Your task to perform on an android device: Open internet settings Image 0: 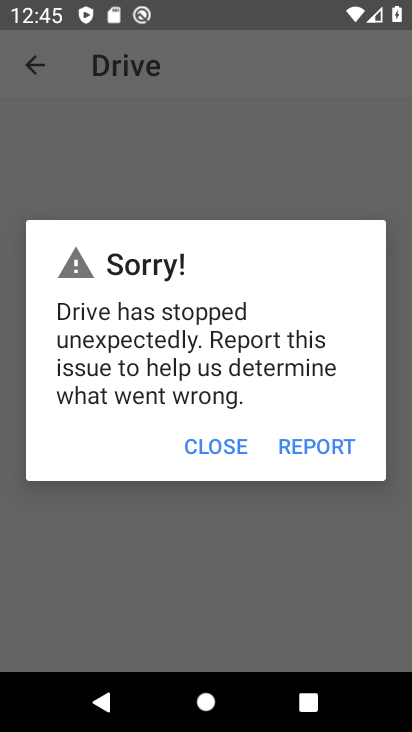
Step 0: press home button
Your task to perform on an android device: Open internet settings Image 1: 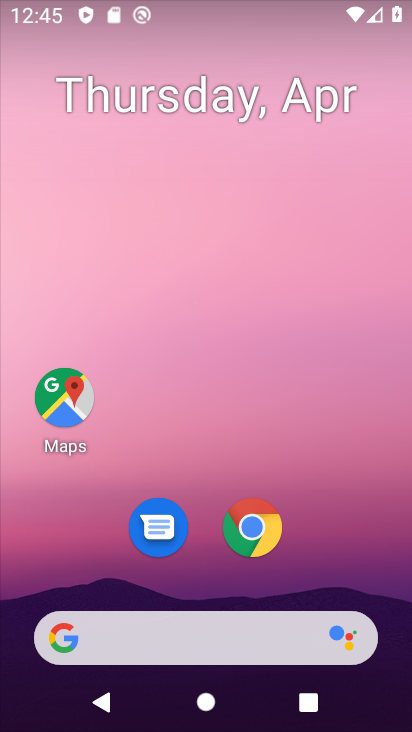
Step 1: drag from (187, 478) to (218, 153)
Your task to perform on an android device: Open internet settings Image 2: 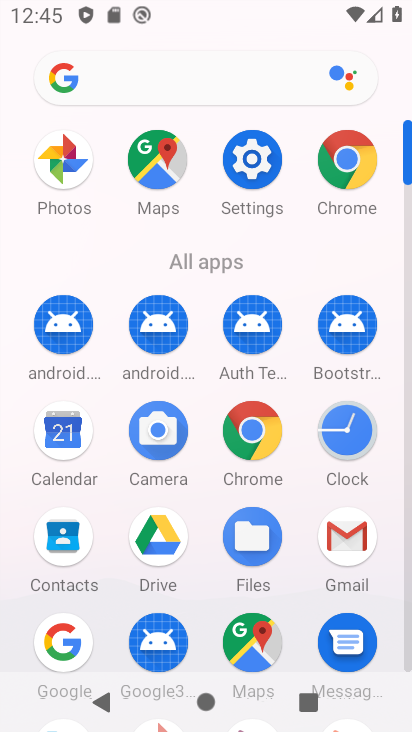
Step 2: click (256, 171)
Your task to perform on an android device: Open internet settings Image 3: 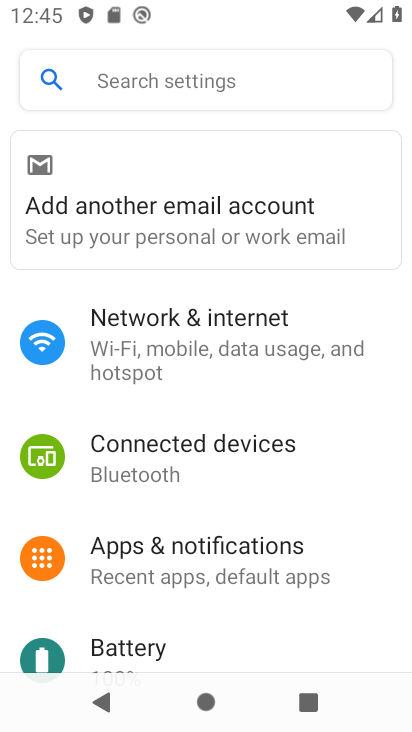
Step 3: click (166, 361)
Your task to perform on an android device: Open internet settings Image 4: 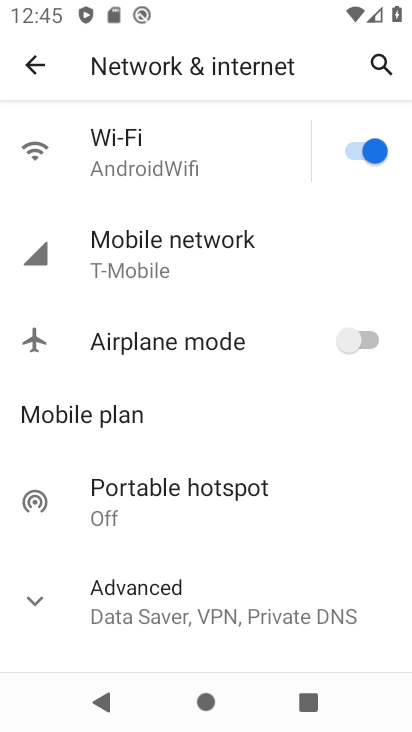
Step 4: task complete